Your task to perform on an android device: see sites visited before in the chrome app Image 0: 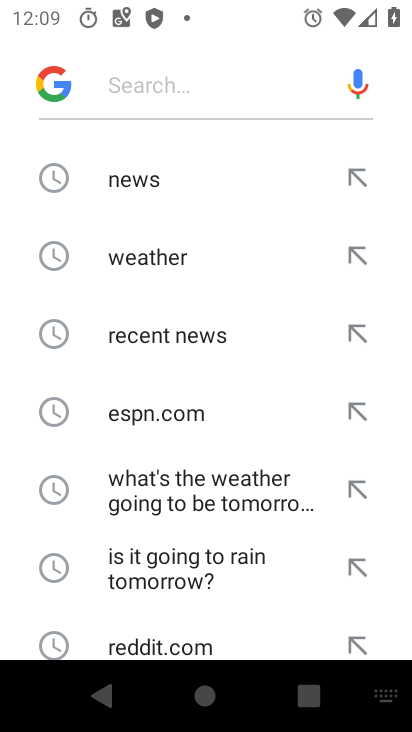
Step 0: drag from (192, 461) to (186, 308)
Your task to perform on an android device: see sites visited before in the chrome app Image 1: 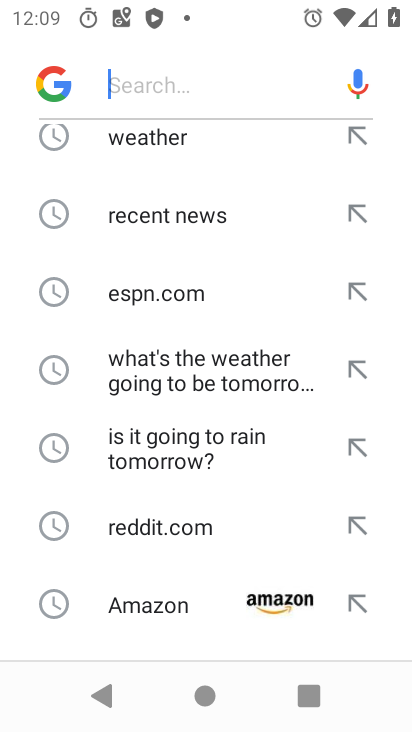
Step 1: drag from (213, 329) to (144, 634)
Your task to perform on an android device: see sites visited before in the chrome app Image 2: 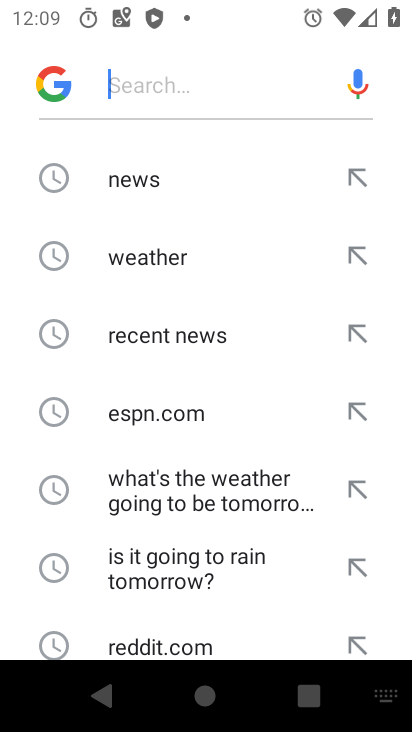
Step 2: drag from (227, 436) to (260, 145)
Your task to perform on an android device: see sites visited before in the chrome app Image 3: 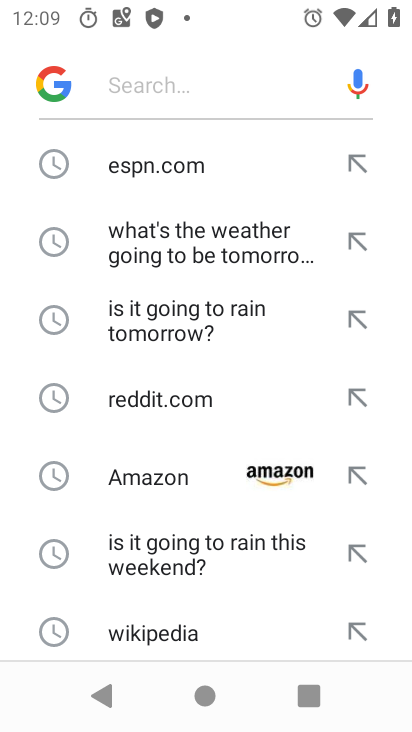
Step 3: press home button
Your task to perform on an android device: see sites visited before in the chrome app Image 4: 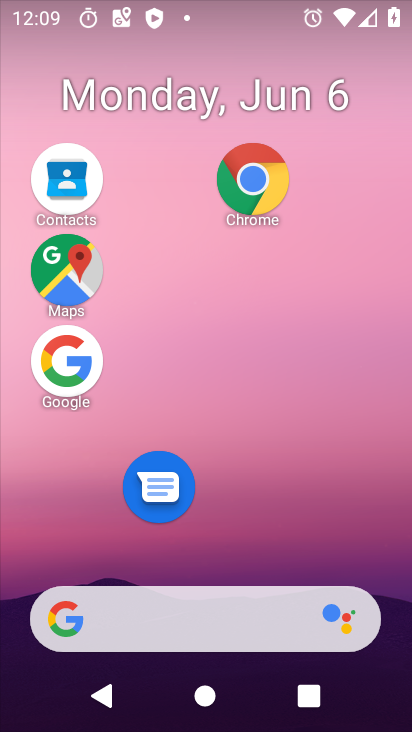
Step 4: click (251, 165)
Your task to perform on an android device: see sites visited before in the chrome app Image 5: 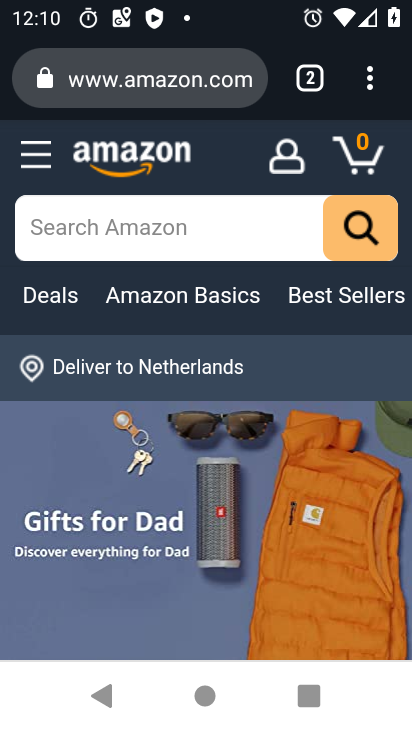
Step 5: click (377, 87)
Your task to perform on an android device: see sites visited before in the chrome app Image 6: 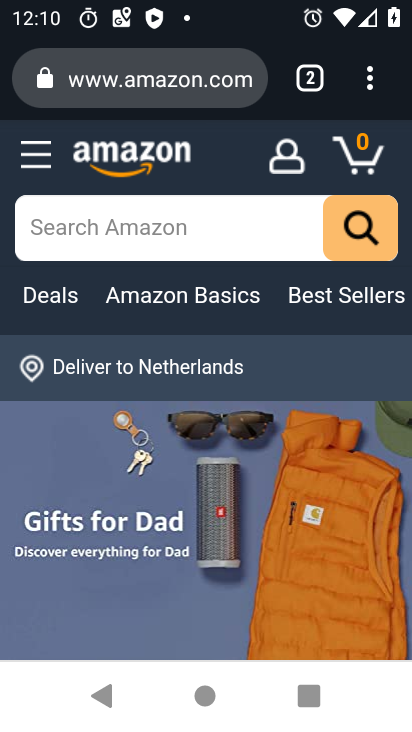
Step 6: click (355, 86)
Your task to perform on an android device: see sites visited before in the chrome app Image 7: 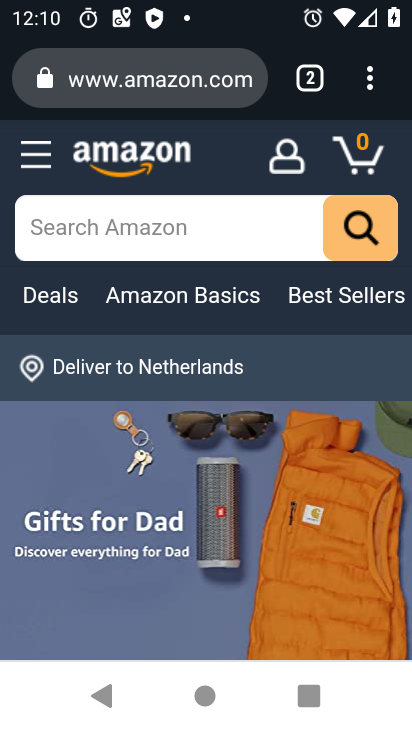
Step 7: click (382, 97)
Your task to perform on an android device: see sites visited before in the chrome app Image 8: 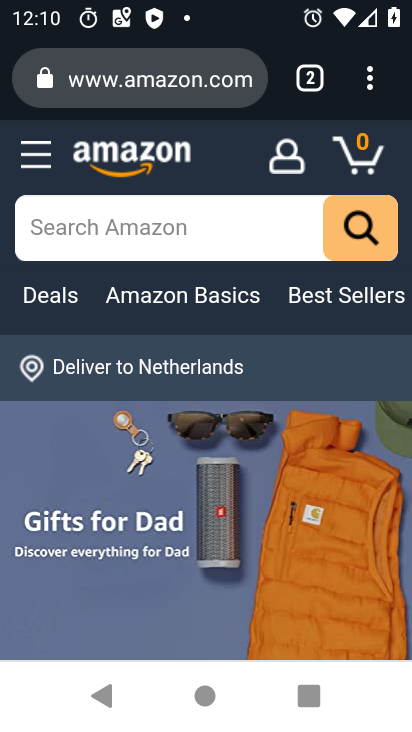
Step 8: click (385, 80)
Your task to perform on an android device: see sites visited before in the chrome app Image 9: 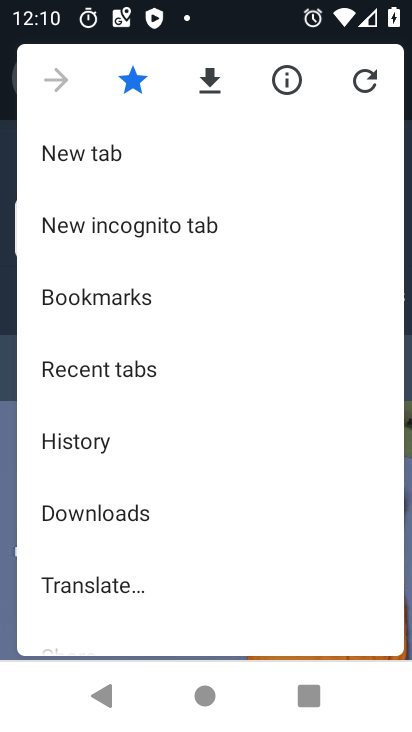
Step 9: click (138, 434)
Your task to perform on an android device: see sites visited before in the chrome app Image 10: 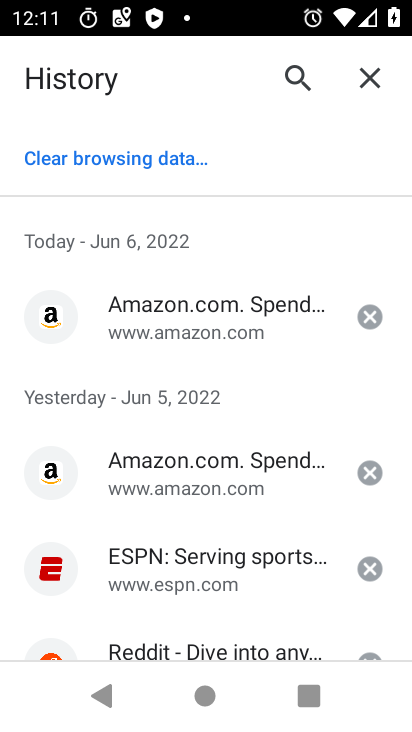
Step 10: task complete